Your task to perform on an android device: turn on the 12-hour format for clock Image 0: 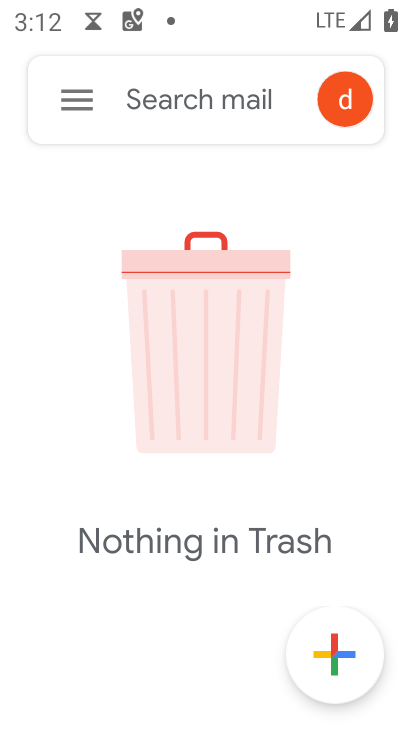
Step 0: press home button
Your task to perform on an android device: turn on the 12-hour format for clock Image 1: 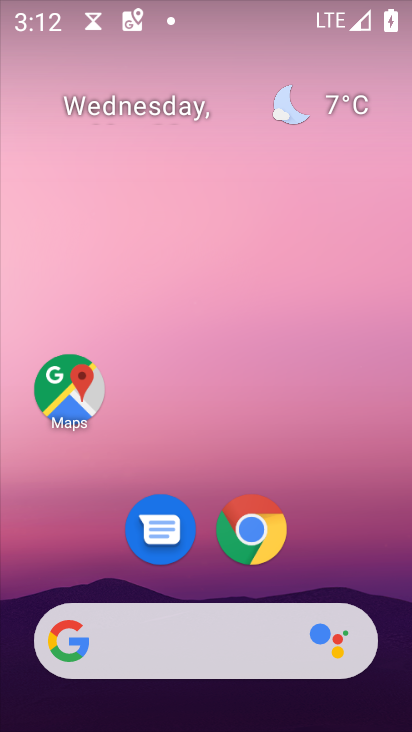
Step 1: drag from (337, 531) to (319, 138)
Your task to perform on an android device: turn on the 12-hour format for clock Image 2: 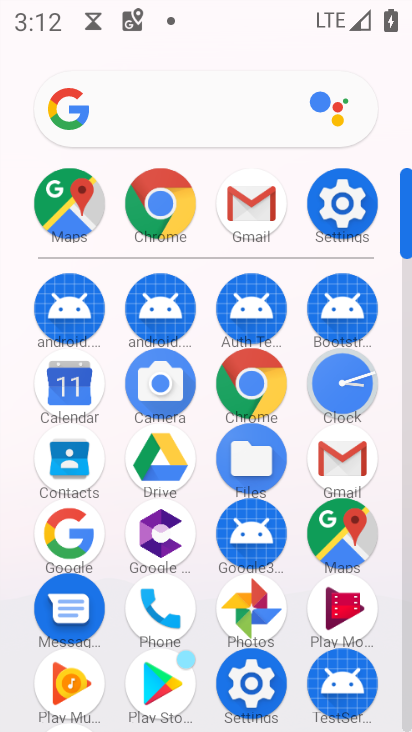
Step 2: click (341, 393)
Your task to perform on an android device: turn on the 12-hour format for clock Image 3: 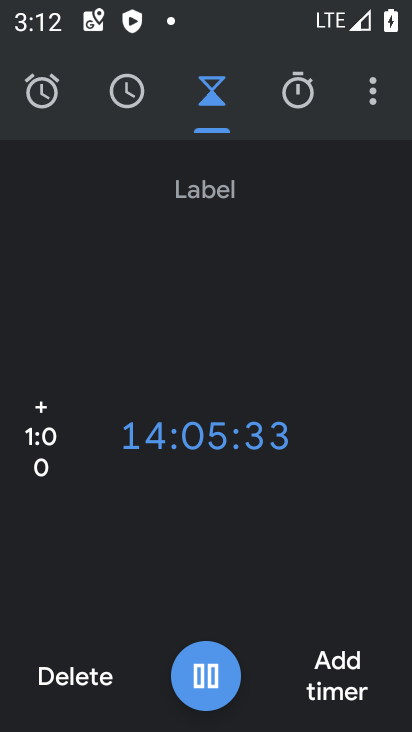
Step 3: click (367, 92)
Your task to perform on an android device: turn on the 12-hour format for clock Image 4: 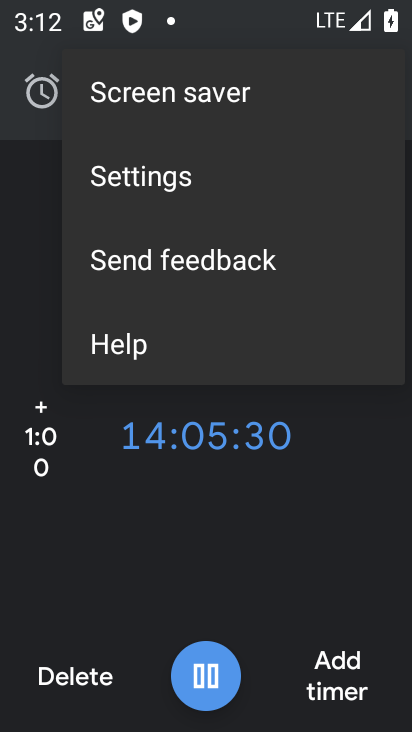
Step 4: click (169, 167)
Your task to perform on an android device: turn on the 12-hour format for clock Image 5: 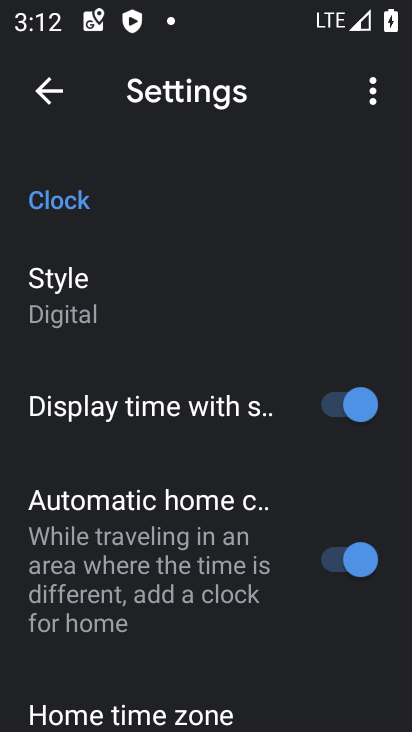
Step 5: drag from (189, 619) to (199, 266)
Your task to perform on an android device: turn on the 12-hour format for clock Image 6: 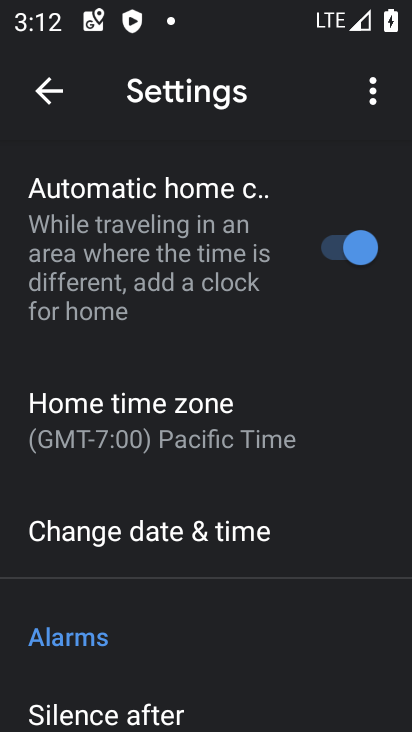
Step 6: drag from (168, 548) to (183, 211)
Your task to perform on an android device: turn on the 12-hour format for clock Image 7: 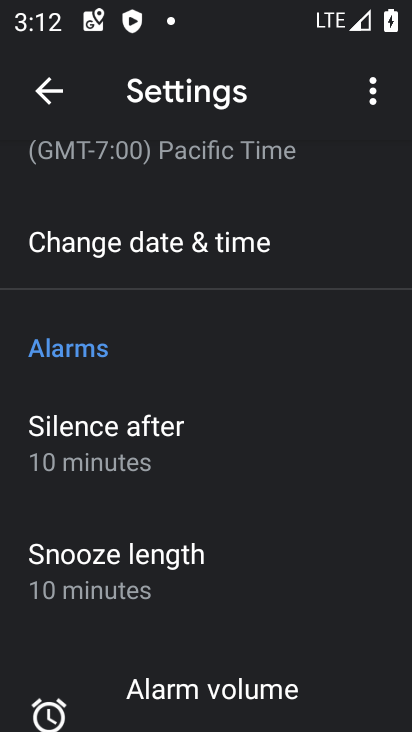
Step 7: drag from (159, 578) to (180, 241)
Your task to perform on an android device: turn on the 12-hour format for clock Image 8: 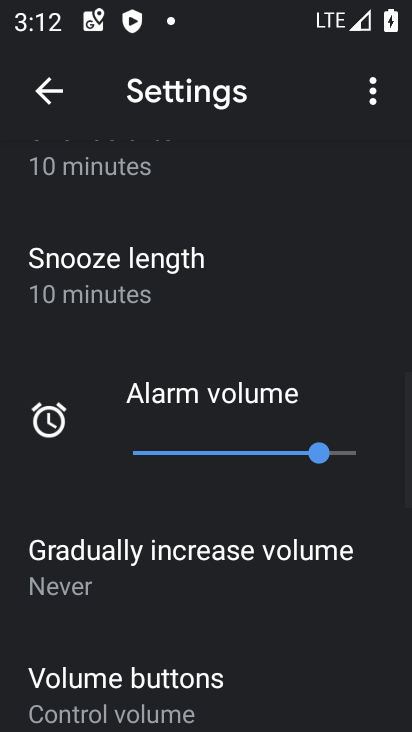
Step 8: drag from (181, 243) to (220, 588)
Your task to perform on an android device: turn on the 12-hour format for clock Image 9: 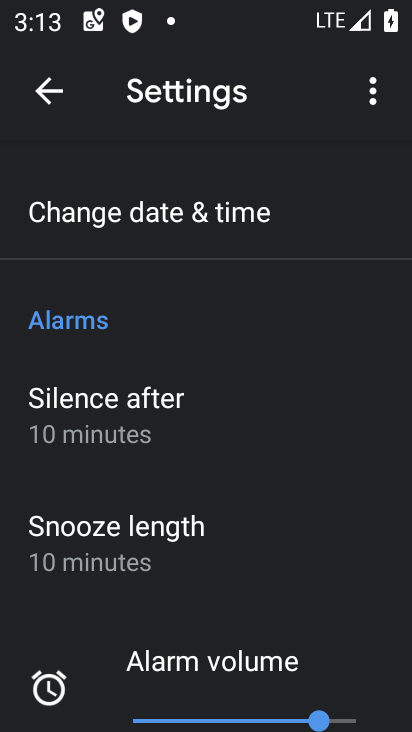
Step 9: click (155, 217)
Your task to perform on an android device: turn on the 12-hour format for clock Image 10: 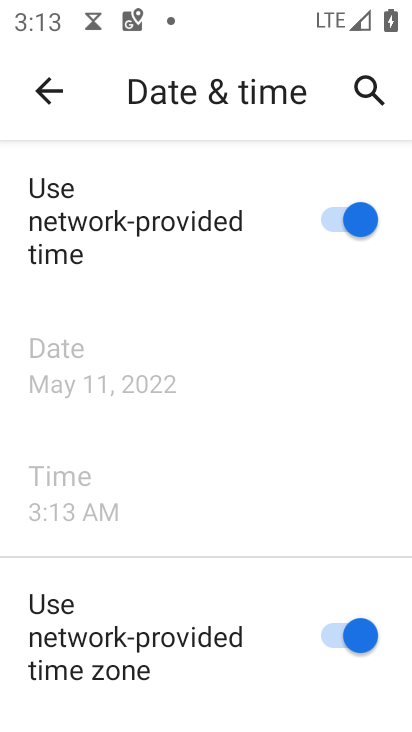
Step 10: drag from (214, 566) to (219, 221)
Your task to perform on an android device: turn on the 12-hour format for clock Image 11: 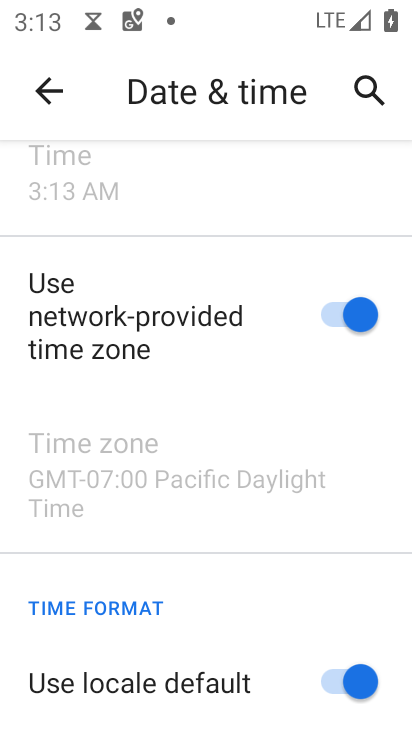
Step 11: drag from (211, 613) to (256, 271)
Your task to perform on an android device: turn on the 12-hour format for clock Image 12: 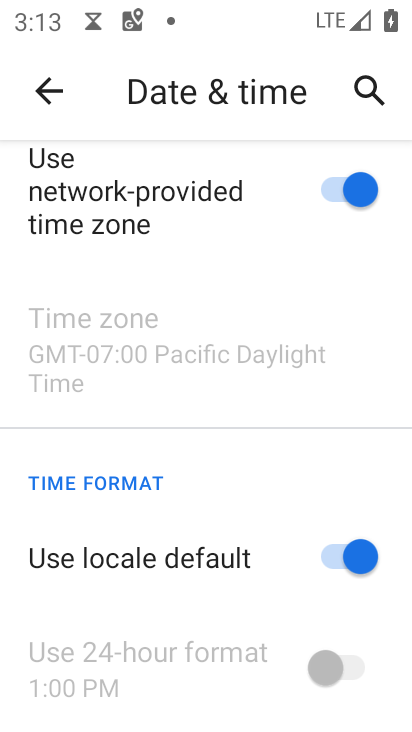
Step 12: click (359, 562)
Your task to perform on an android device: turn on the 12-hour format for clock Image 13: 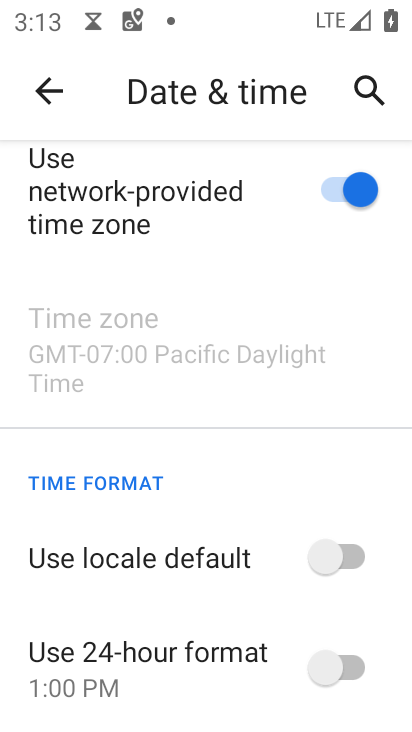
Step 13: click (353, 553)
Your task to perform on an android device: turn on the 12-hour format for clock Image 14: 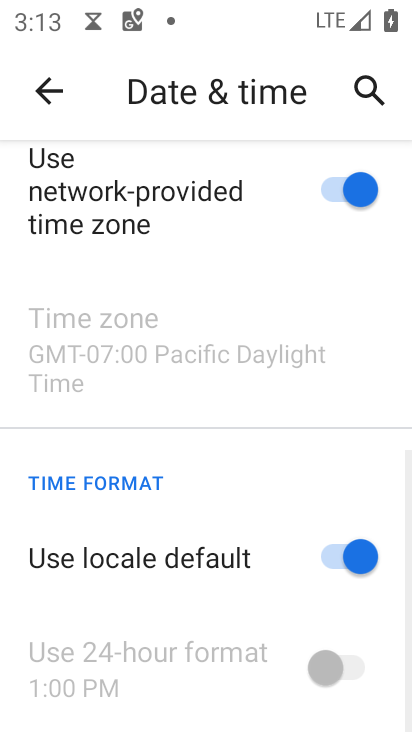
Step 14: task complete